Your task to perform on an android device: Open Google Chrome and open the bookmarks view Image 0: 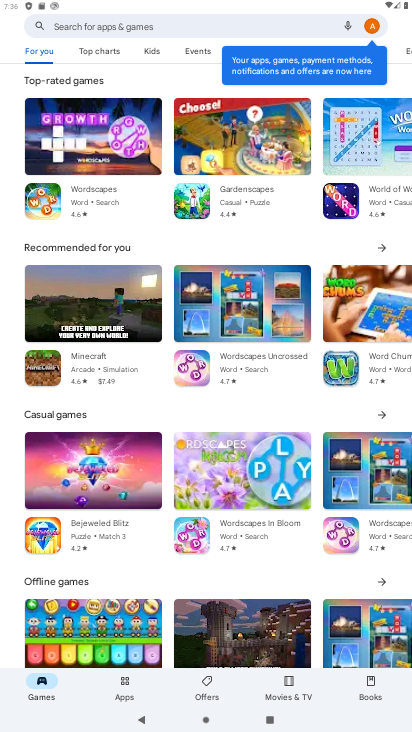
Step 0: press home button
Your task to perform on an android device: Open Google Chrome and open the bookmarks view Image 1: 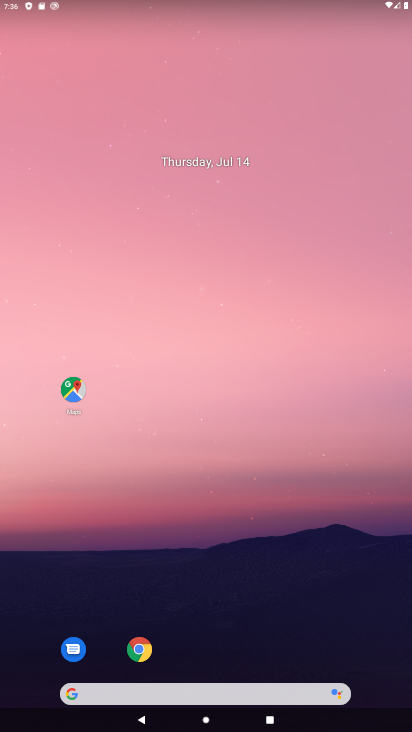
Step 1: drag from (316, 592) to (323, 75)
Your task to perform on an android device: Open Google Chrome and open the bookmarks view Image 2: 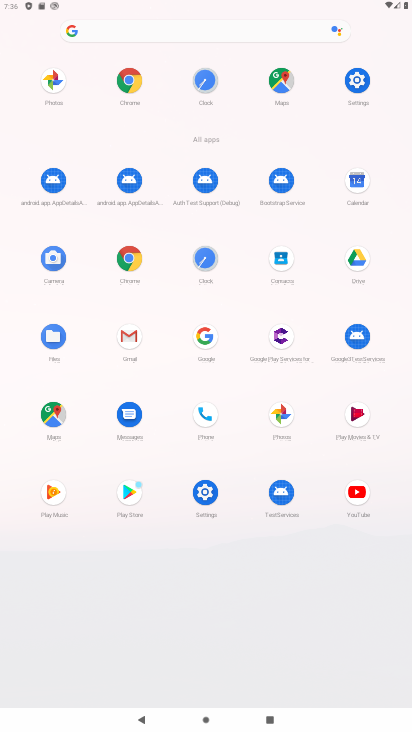
Step 2: click (122, 69)
Your task to perform on an android device: Open Google Chrome and open the bookmarks view Image 3: 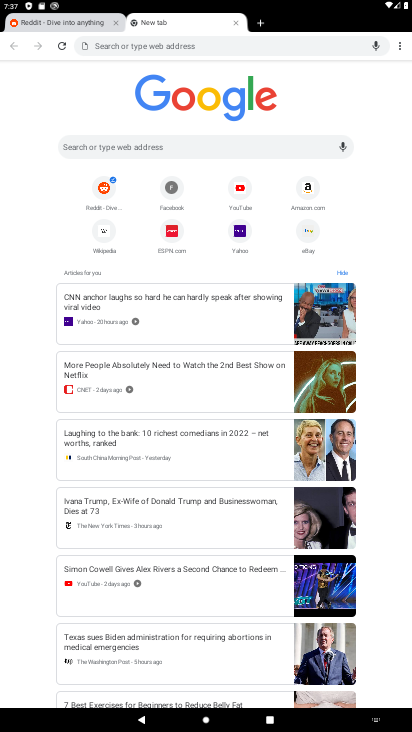
Step 3: drag from (403, 42) to (338, 87)
Your task to perform on an android device: Open Google Chrome and open the bookmarks view Image 4: 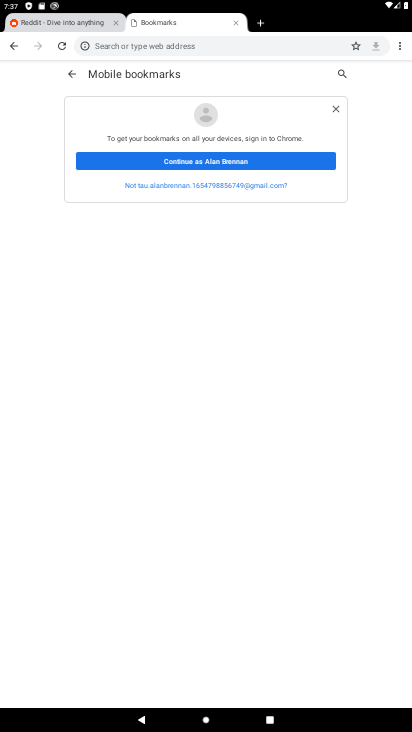
Step 4: click (233, 153)
Your task to perform on an android device: Open Google Chrome and open the bookmarks view Image 5: 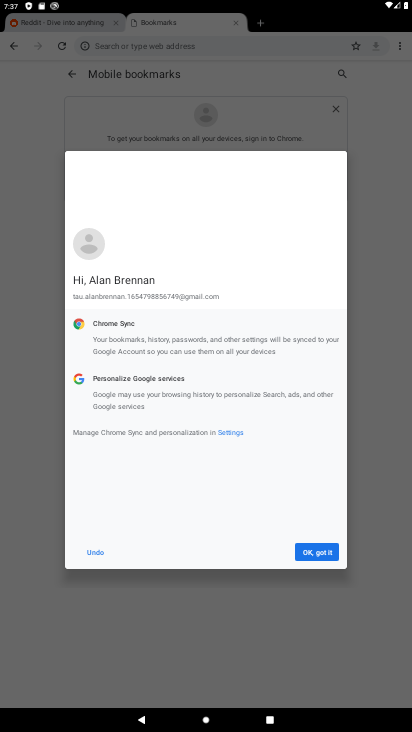
Step 5: click (317, 542)
Your task to perform on an android device: Open Google Chrome and open the bookmarks view Image 6: 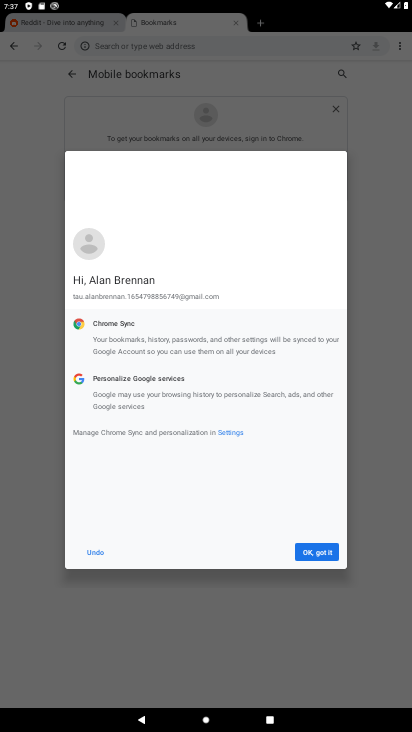
Step 6: click (307, 552)
Your task to perform on an android device: Open Google Chrome and open the bookmarks view Image 7: 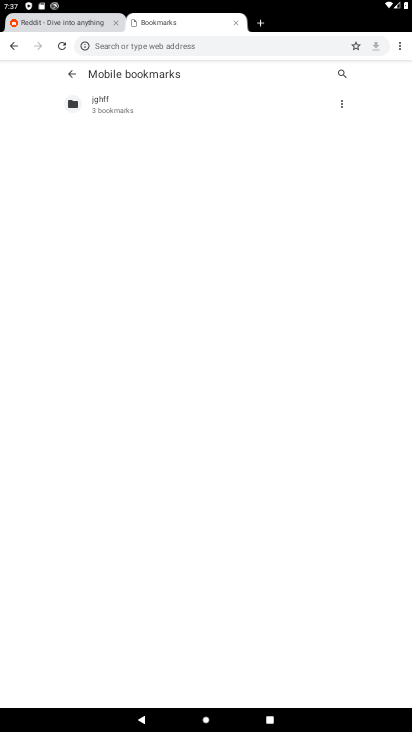
Step 7: task complete